Your task to perform on an android device: Open Google Chrome Image 0: 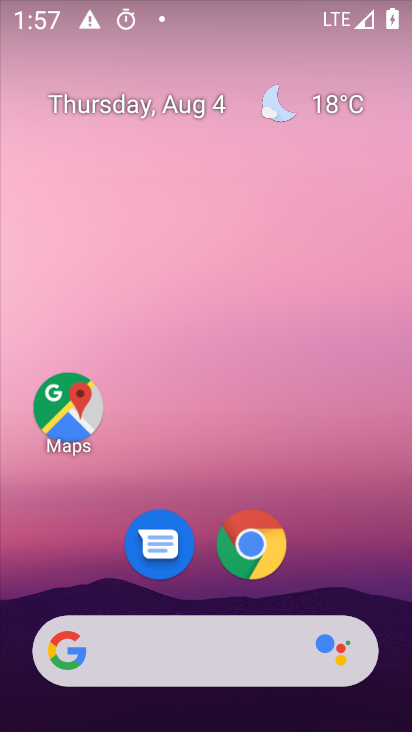
Step 0: click (256, 546)
Your task to perform on an android device: Open Google Chrome Image 1: 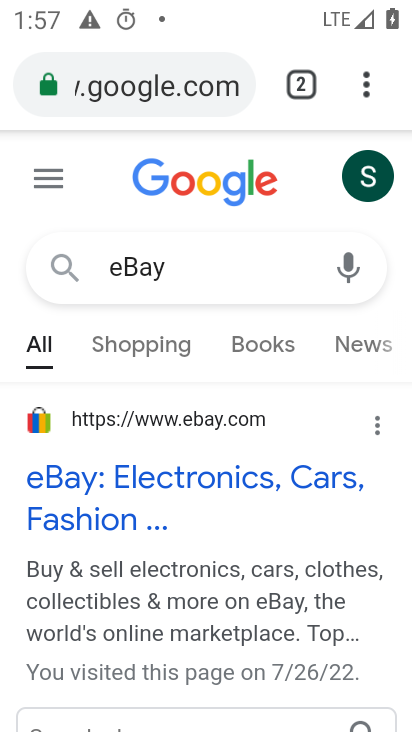
Step 1: task complete